Your task to perform on an android device: toggle priority inbox in the gmail app Image 0: 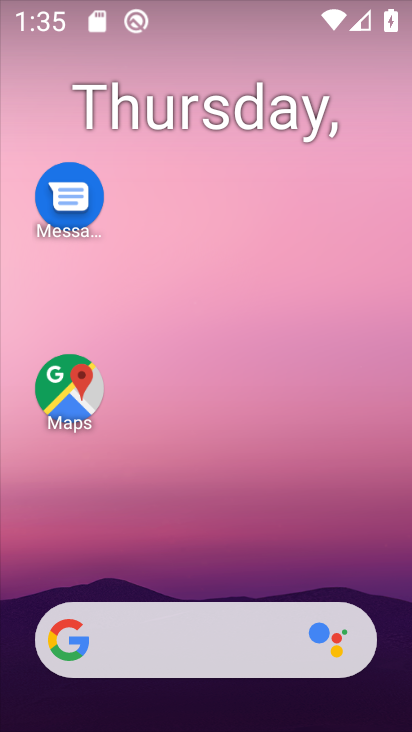
Step 0: drag from (154, 592) to (246, 10)
Your task to perform on an android device: toggle priority inbox in the gmail app Image 1: 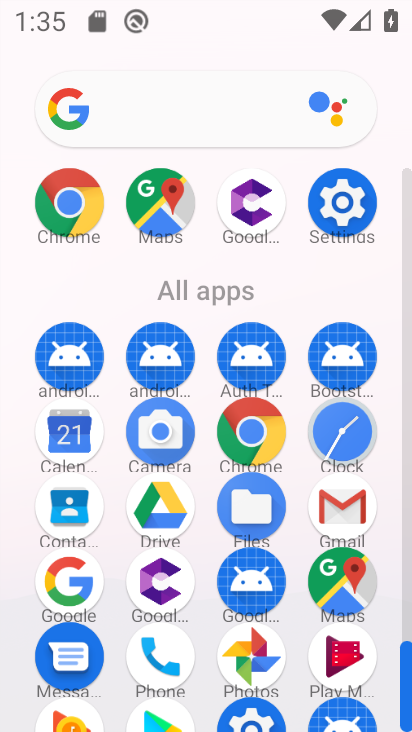
Step 1: click (344, 197)
Your task to perform on an android device: toggle priority inbox in the gmail app Image 2: 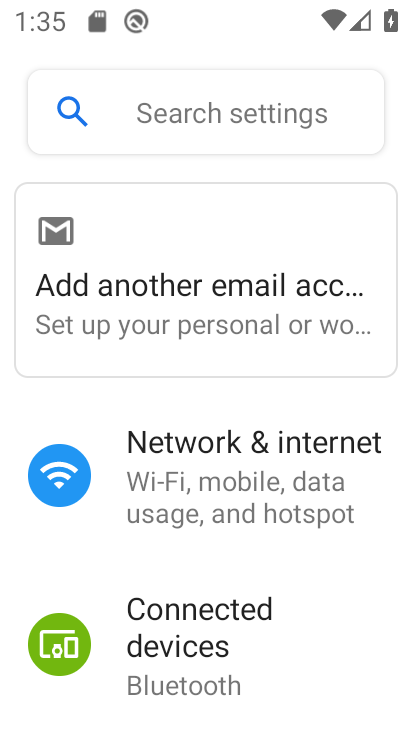
Step 2: drag from (288, 682) to (297, 220)
Your task to perform on an android device: toggle priority inbox in the gmail app Image 3: 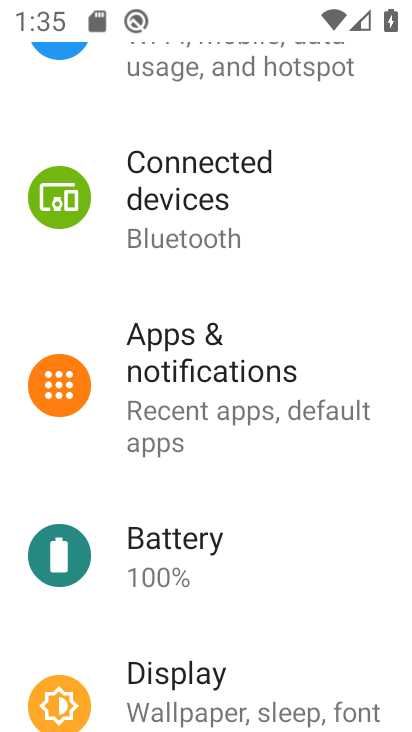
Step 3: press home button
Your task to perform on an android device: toggle priority inbox in the gmail app Image 4: 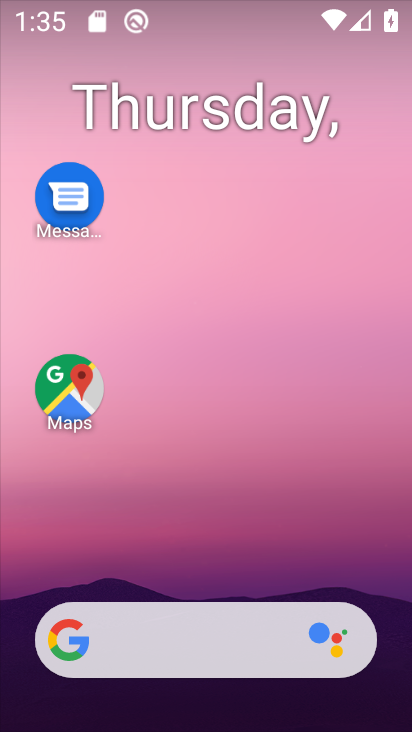
Step 4: drag from (148, 564) to (171, 107)
Your task to perform on an android device: toggle priority inbox in the gmail app Image 5: 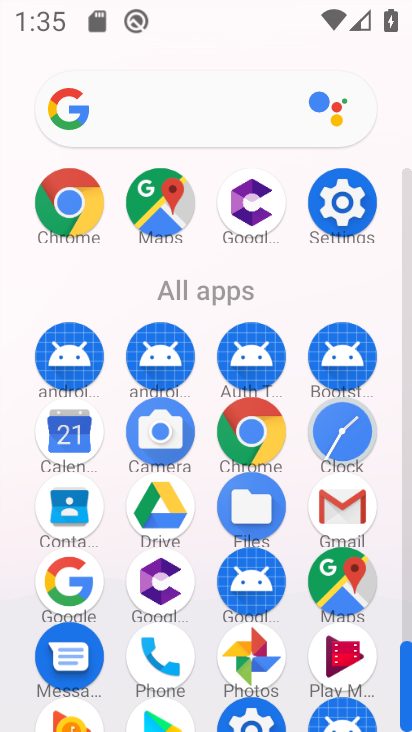
Step 5: click (337, 510)
Your task to perform on an android device: toggle priority inbox in the gmail app Image 6: 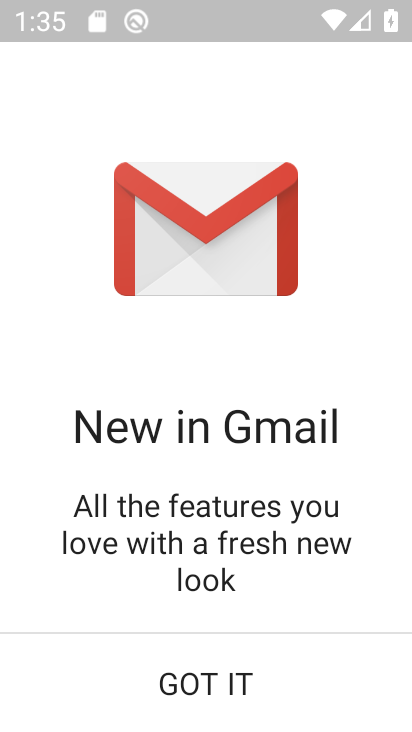
Step 6: click (205, 678)
Your task to perform on an android device: toggle priority inbox in the gmail app Image 7: 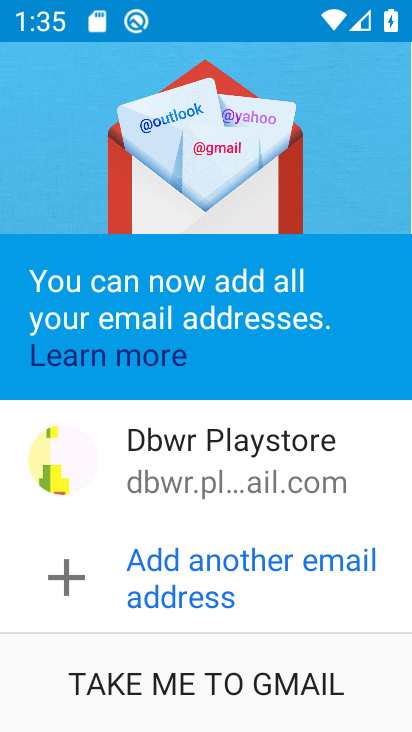
Step 7: click (193, 669)
Your task to perform on an android device: toggle priority inbox in the gmail app Image 8: 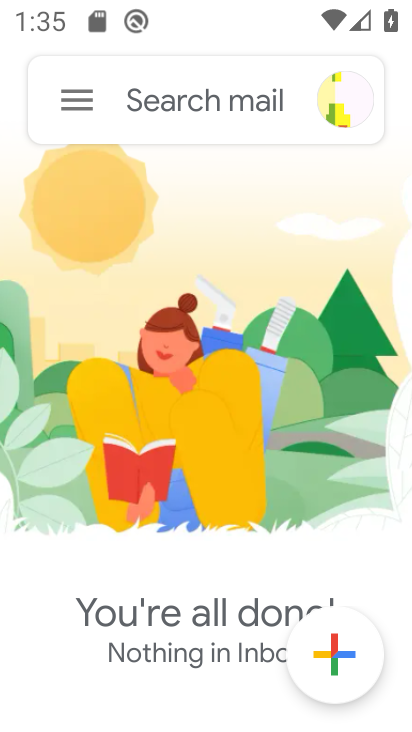
Step 8: click (87, 100)
Your task to perform on an android device: toggle priority inbox in the gmail app Image 9: 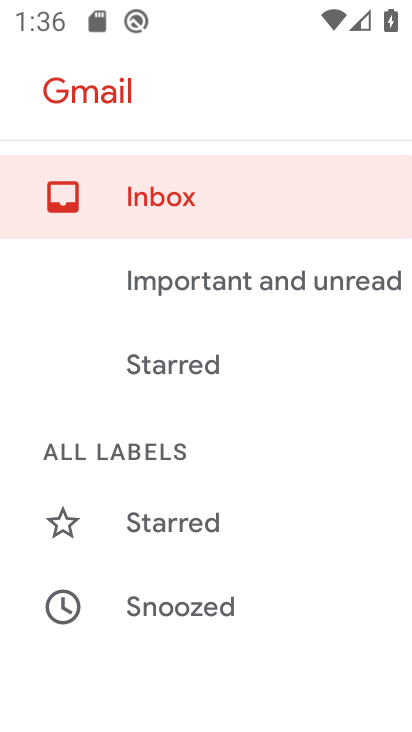
Step 9: drag from (213, 556) to (251, 365)
Your task to perform on an android device: toggle priority inbox in the gmail app Image 10: 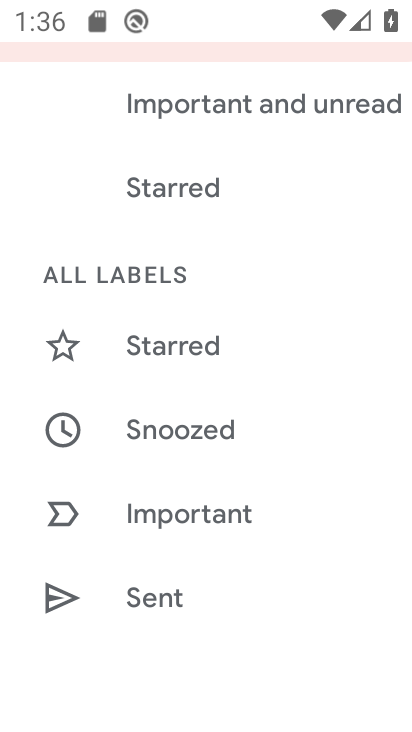
Step 10: drag from (139, 489) to (157, 150)
Your task to perform on an android device: toggle priority inbox in the gmail app Image 11: 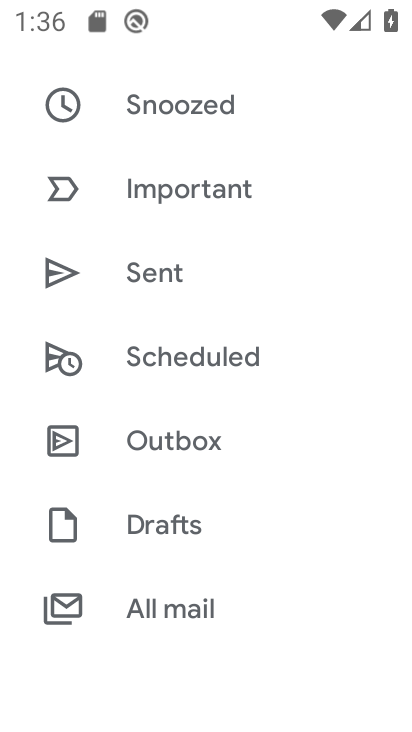
Step 11: drag from (185, 513) to (216, 75)
Your task to perform on an android device: toggle priority inbox in the gmail app Image 12: 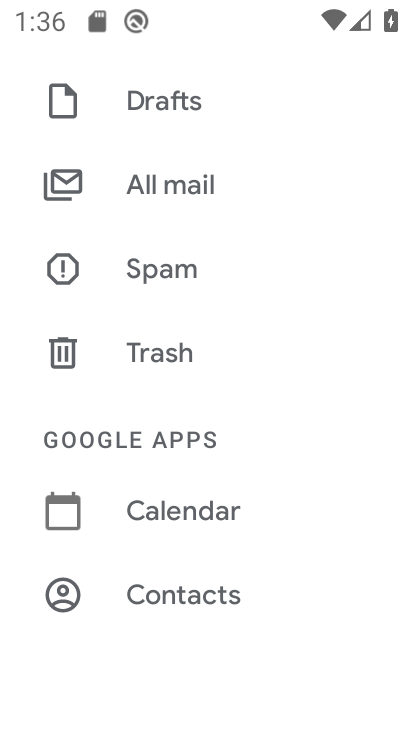
Step 12: drag from (188, 548) to (239, 183)
Your task to perform on an android device: toggle priority inbox in the gmail app Image 13: 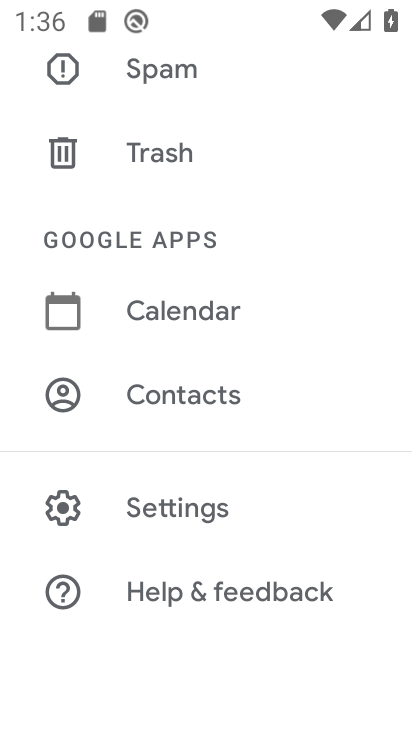
Step 13: click (179, 503)
Your task to perform on an android device: toggle priority inbox in the gmail app Image 14: 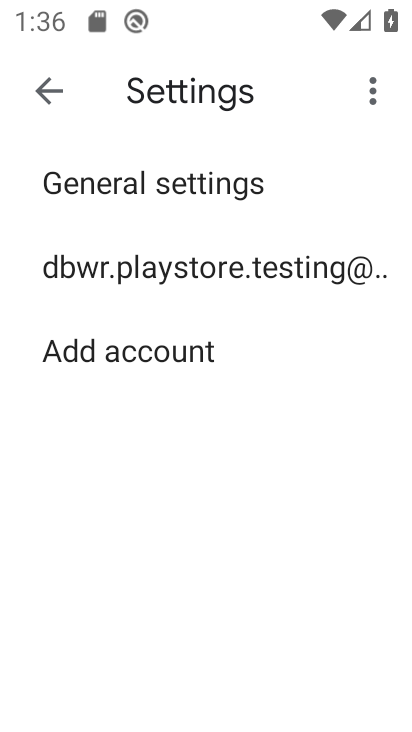
Step 14: click (156, 272)
Your task to perform on an android device: toggle priority inbox in the gmail app Image 15: 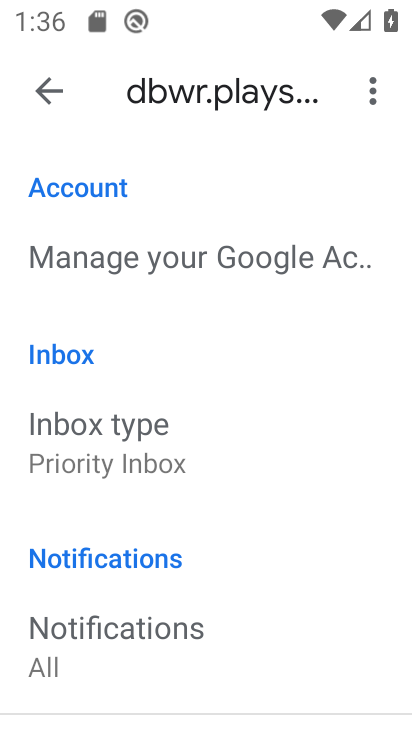
Step 15: click (114, 467)
Your task to perform on an android device: toggle priority inbox in the gmail app Image 16: 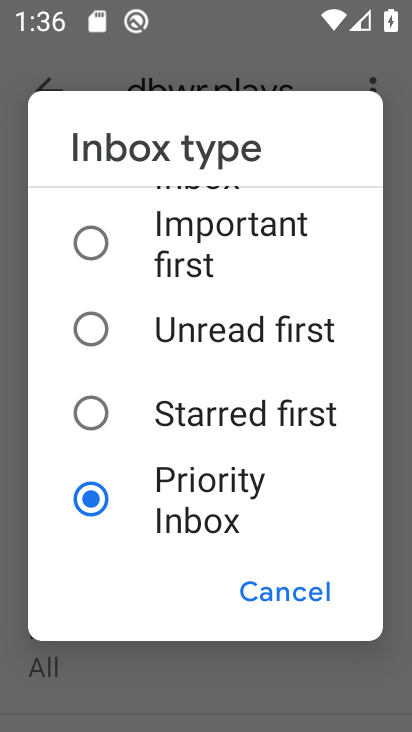
Step 16: click (91, 255)
Your task to perform on an android device: toggle priority inbox in the gmail app Image 17: 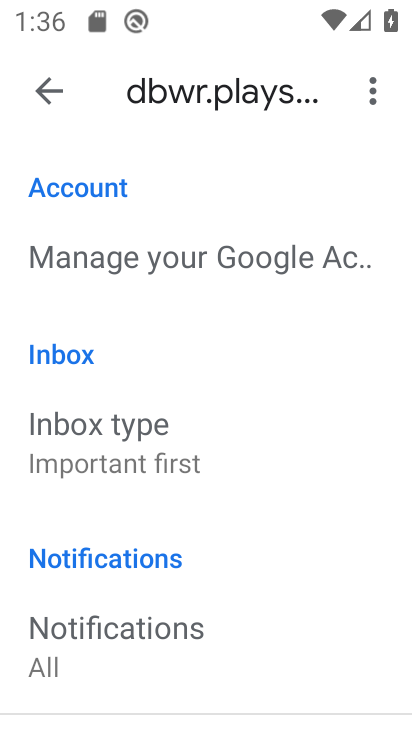
Step 17: click (139, 448)
Your task to perform on an android device: toggle priority inbox in the gmail app Image 18: 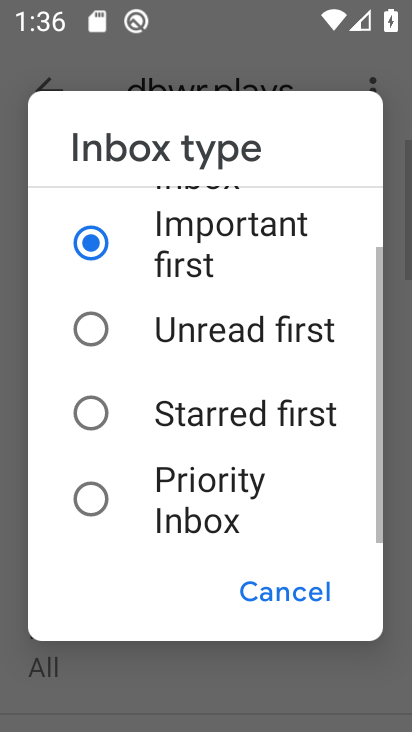
Step 18: drag from (148, 258) to (171, 517)
Your task to perform on an android device: toggle priority inbox in the gmail app Image 19: 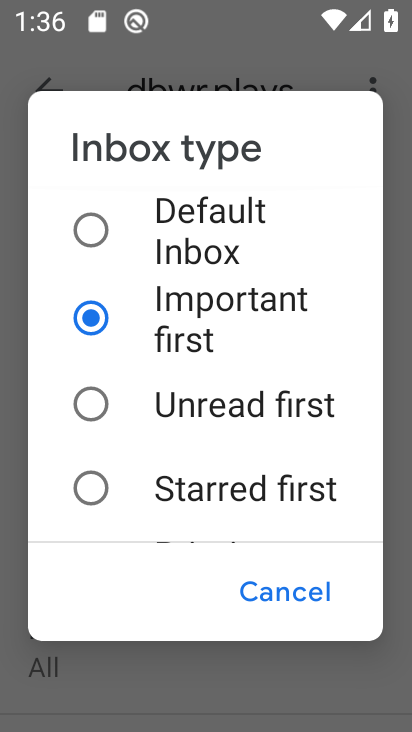
Step 19: click (141, 230)
Your task to perform on an android device: toggle priority inbox in the gmail app Image 20: 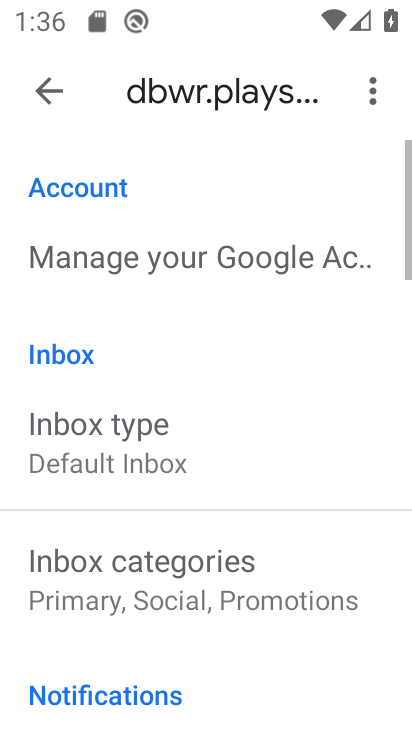
Step 20: task complete